Your task to perform on an android device: Open the phone app and click the voicemail tab. Image 0: 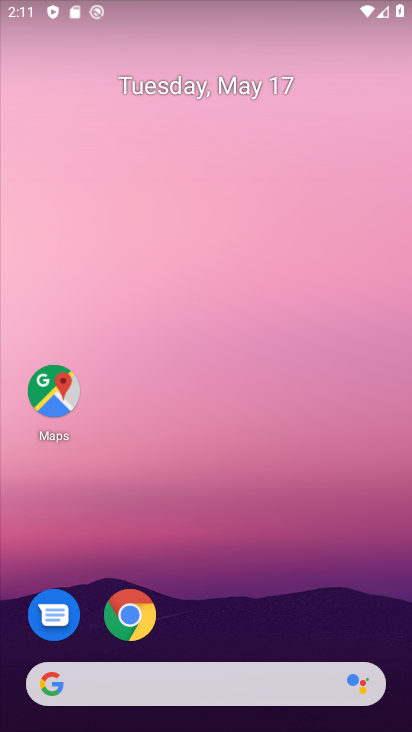
Step 0: drag from (205, 721) to (210, 159)
Your task to perform on an android device: Open the phone app and click the voicemail tab. Image 1: 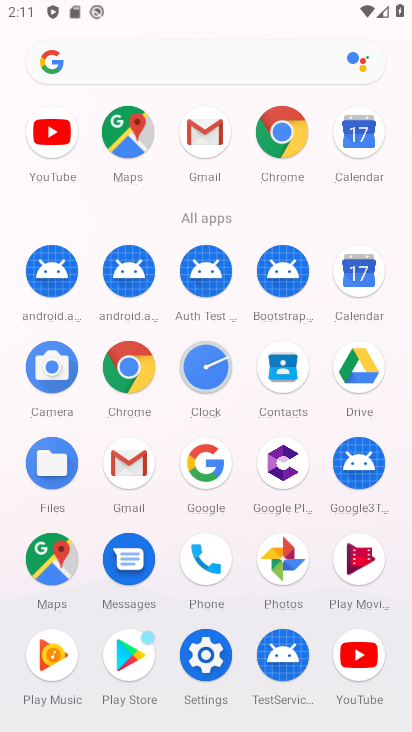
Step 1: click (203, 544)
Your task to perform on an android device: Open the phone app and click the voicemail tab. Image 2: 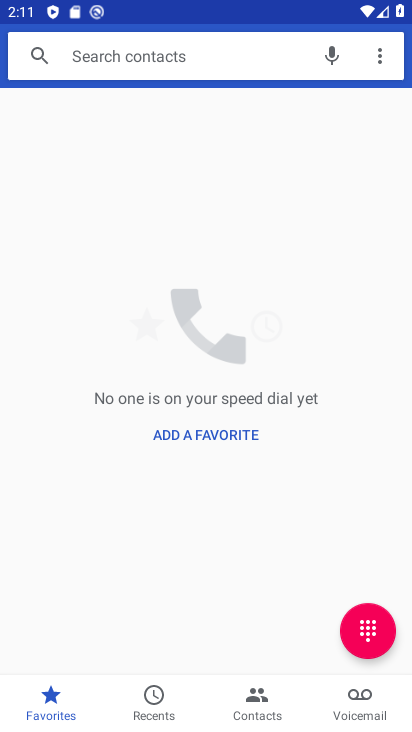
Step 2: click (364, 702)
Your task to perform on an android device: Open the phone app and click the voicemail tab. Image 3: 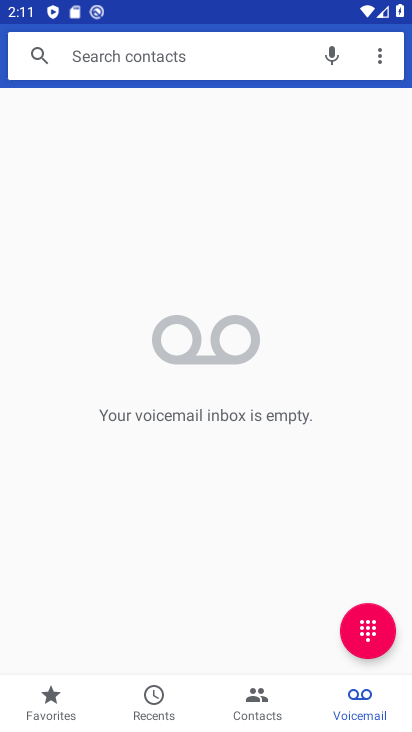
Step 3: task complete